Your task to perform on an android device: Go to ESPN.com Image 0: 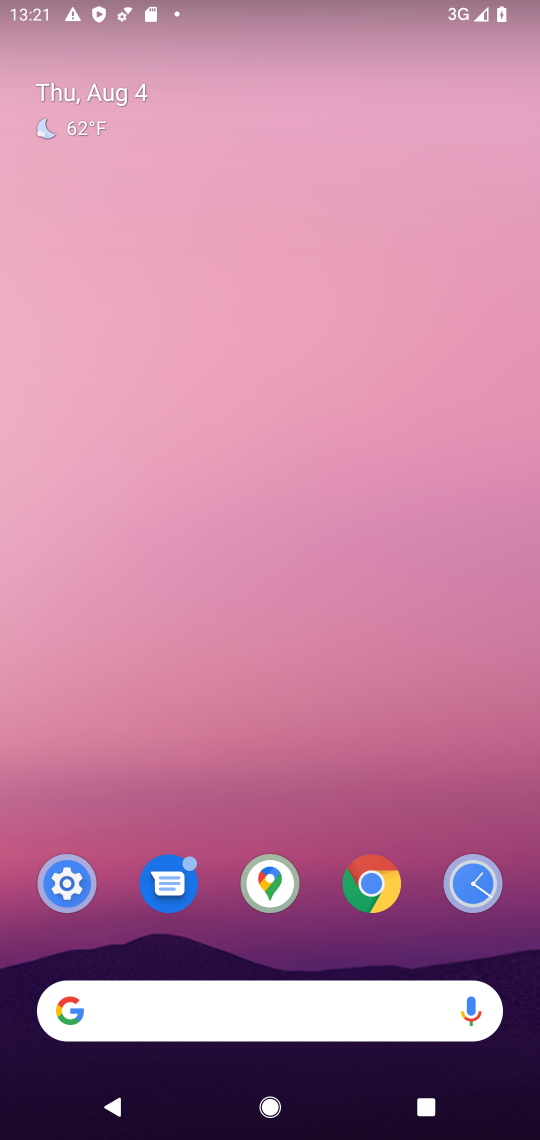
Step 0: drag from (278, 954) to (308, 12)
Your task to perform on an android device: Go to ESPN.com Image 1: 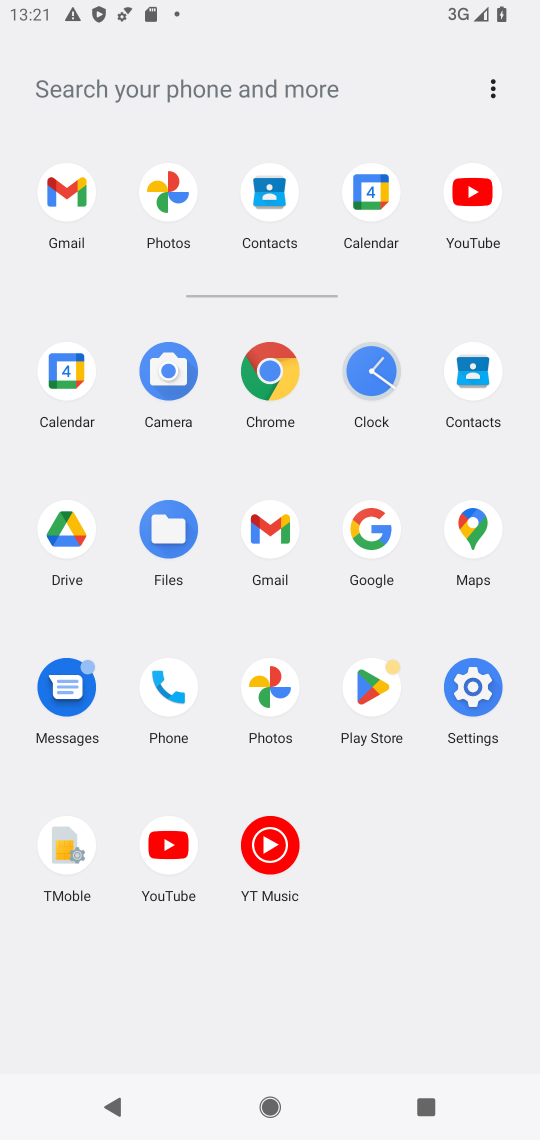
Step 1: drag from (310, 1060) to (312, 640)
Your task to perform on an android device: Go to ESPN.com Image 2: 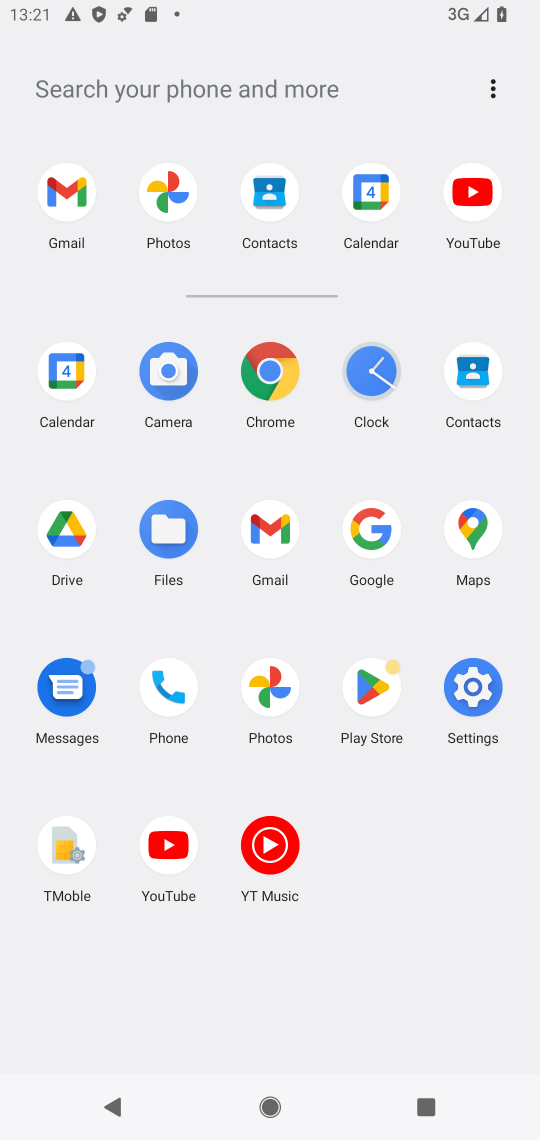
Step 2: drag from (334, 865) to (341, 292)
Your task to perform on an android device: Go to ESPN.com Image 3: 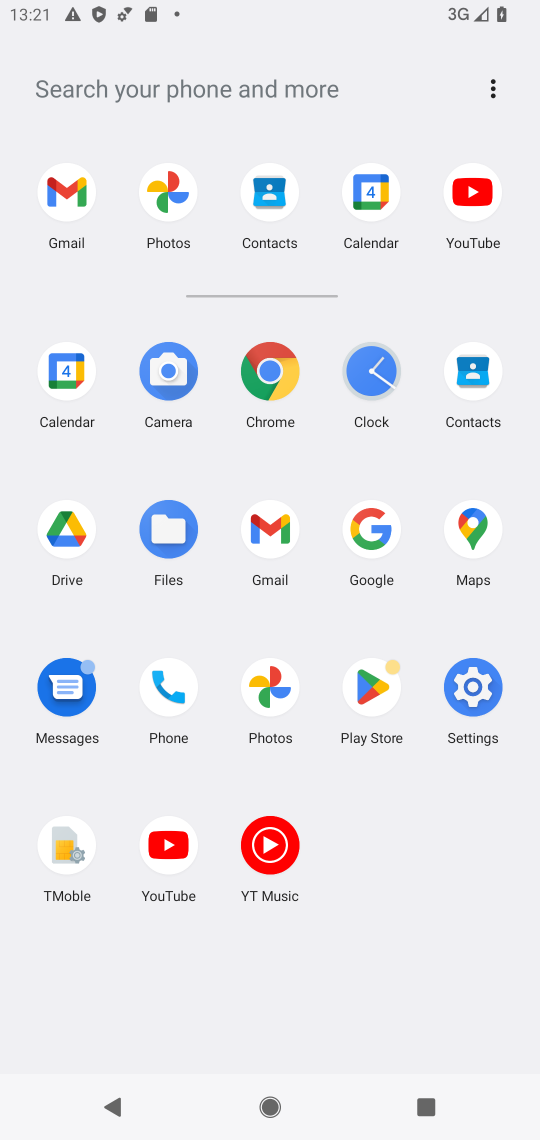
Step 3: click (264, 363)
Your task to perform on an android device: Go to ESPN.com Image 4: 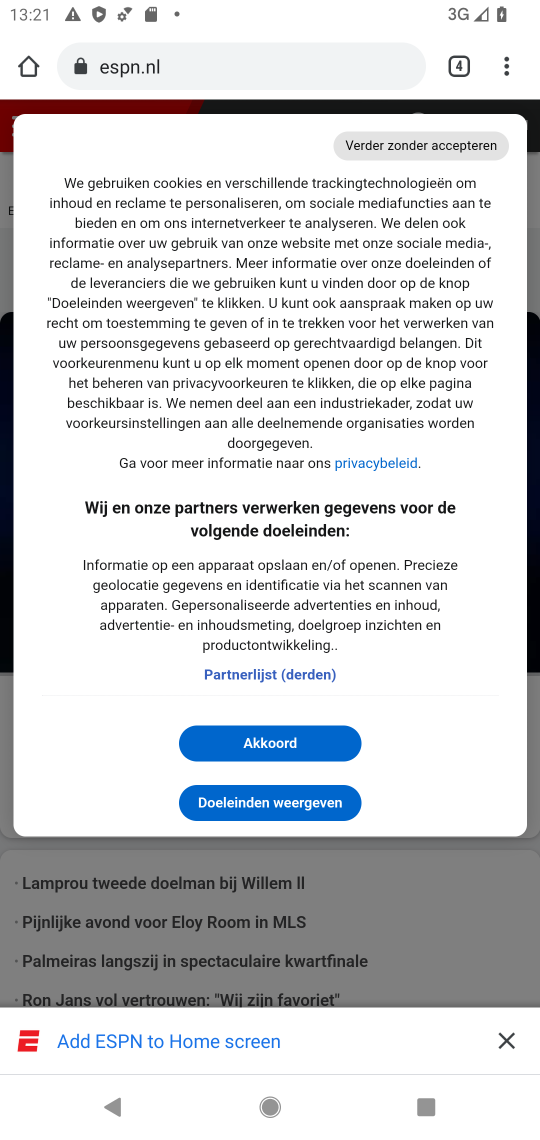
Step 4: click (209, 81)
Your task to perform on an android device: Go to ESPN.com Image 5: 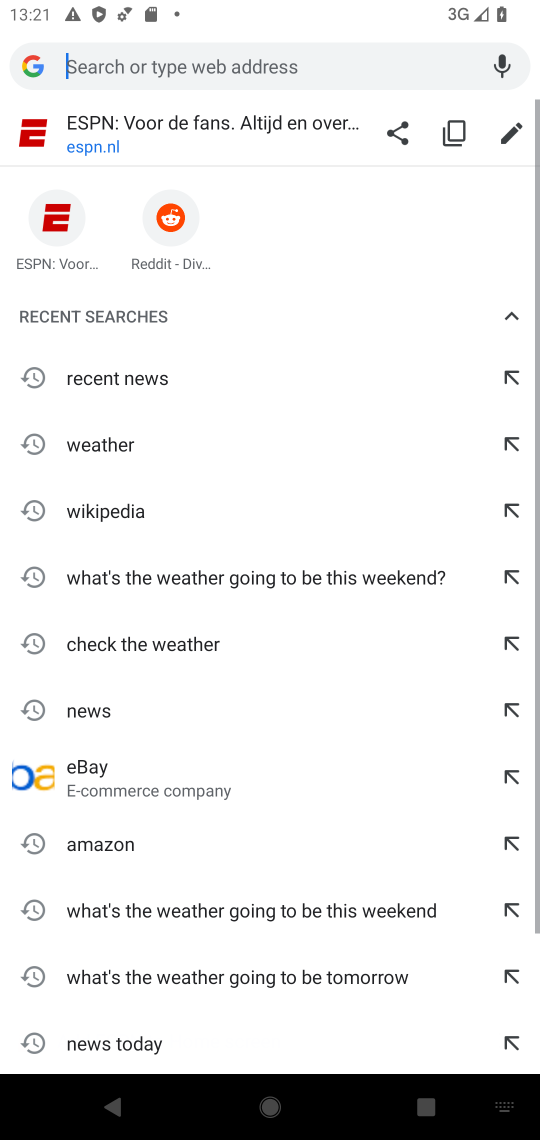
Step 5: click (150, 157)
Your task to perform on an android device: Go to ESPN.com Image 6: 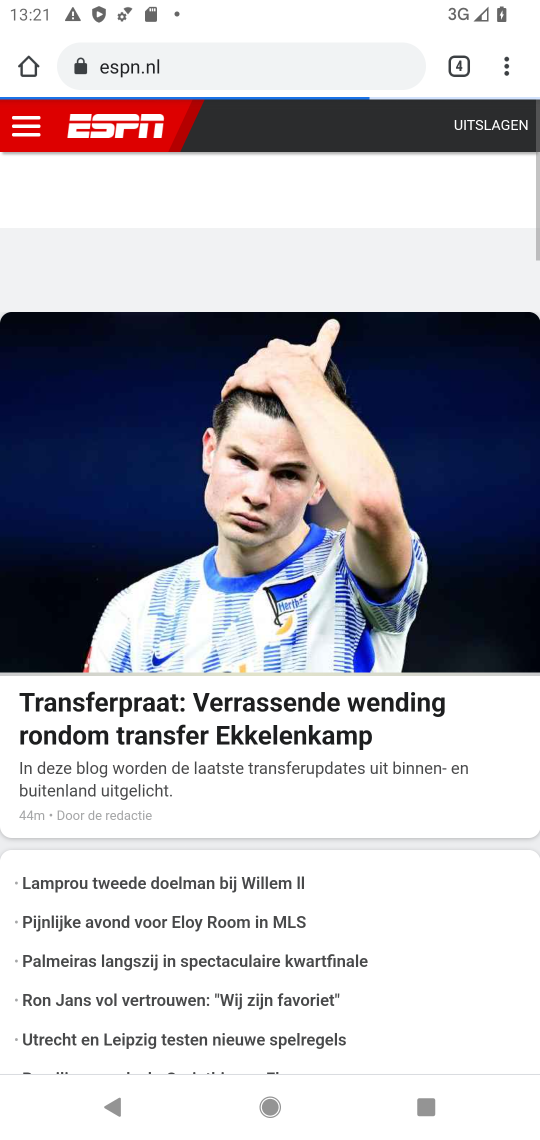
Step 6: task complete